Your task to perform on an android device: Open the calendar and show me this week's events? Image 0: 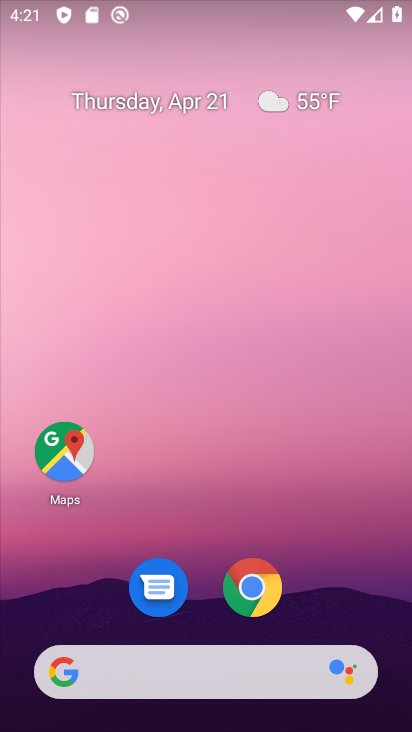
Step 0: drag from (362, 578) to (359, 124)
Your task to perform on an android device: Open the calendar and show me this week's events? Image 1: 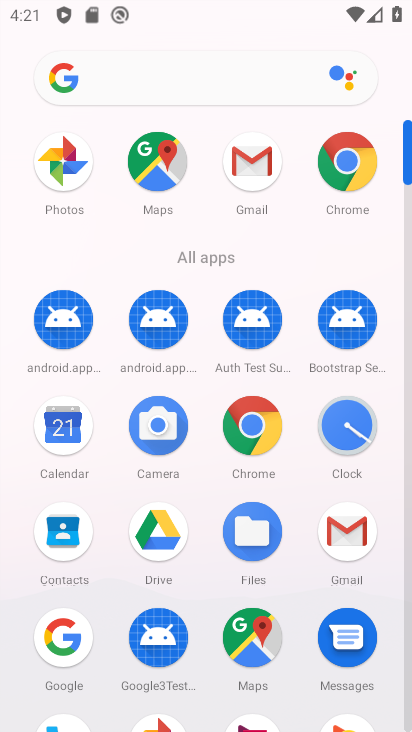
Step 1: drag from (266, 254) to (270, 21)
Your task to perform on an android device: Open the calendar and show me this week's events? Image 2: 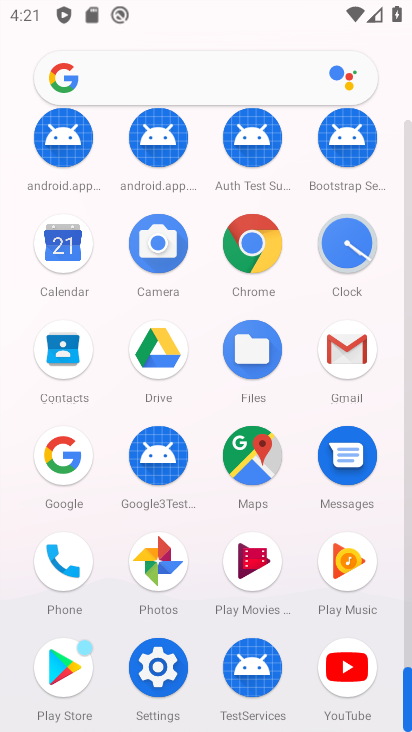
Step 2: click (69, 241)
Your task to perform on an android device: Open the calendar and show me this week's events? Image 3: 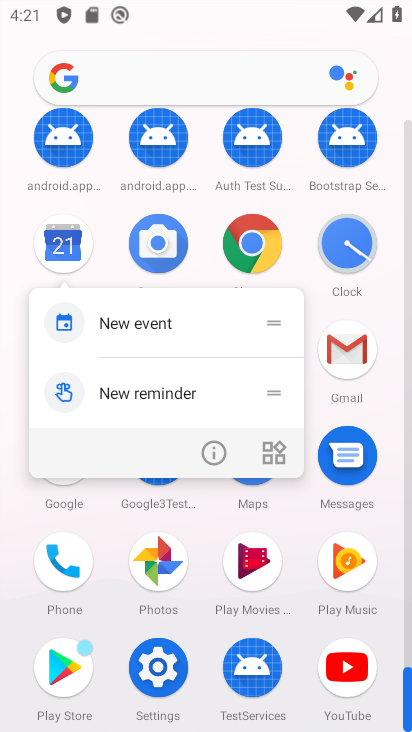
Step 3: click (68, 256)
Your task to perform on an android device: Open the calendar and show me this week's events? Image 4: 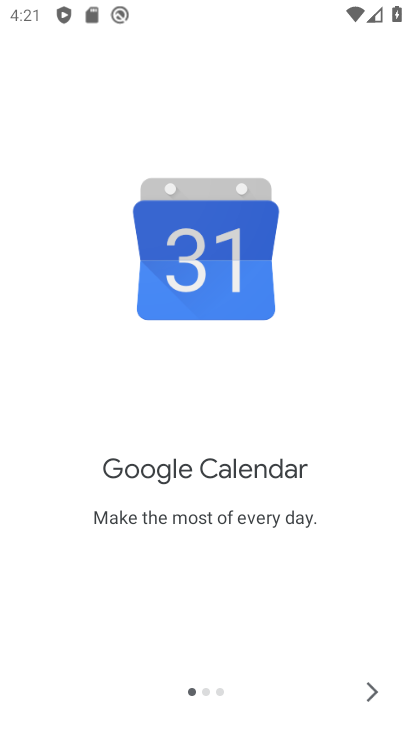
Step 4: click (371, 694)
Your task to perform on an android device: Open the calendar and show me this week's events? Image 5: 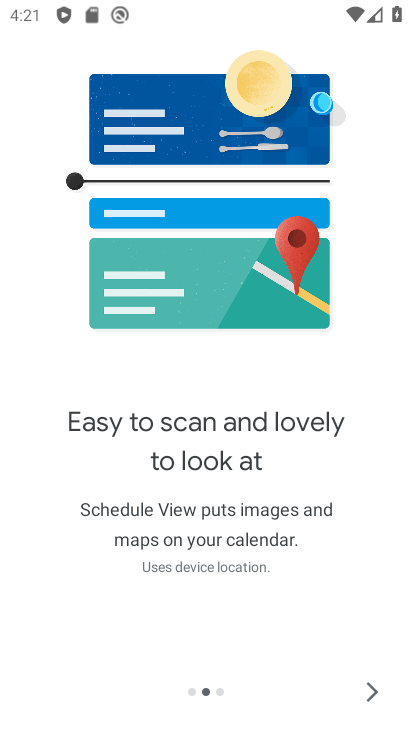
Step 5: click (371, 694)
Your task to perform on an android device: Open the calendar and show me this week's events? Image 6: 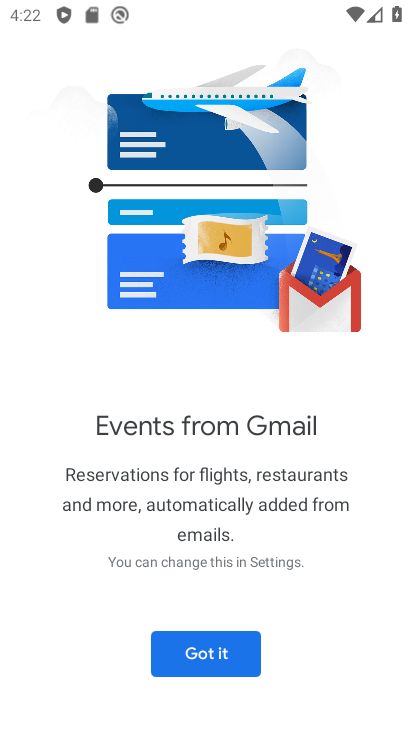
Step 6: click (199, 651)
Your task to perform on an android device: Open the calendar and show me this week's events? Image 7: 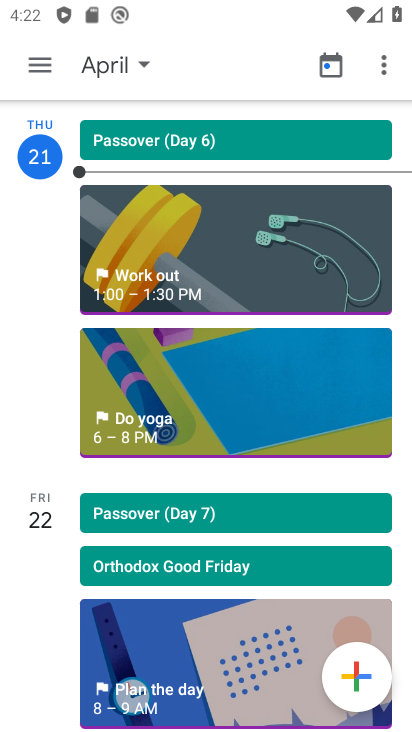
Step 7: click (139, 66)
Your task to perform on an android device: Open the calendar and show me this week's events? Image 8: 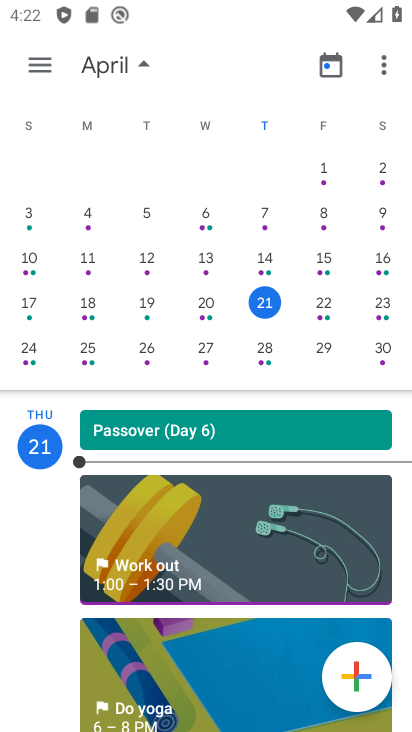
Step 8: click (322, 313)
Your task to perform on an android device: Open the calendar and show me this week's events? Image 9: 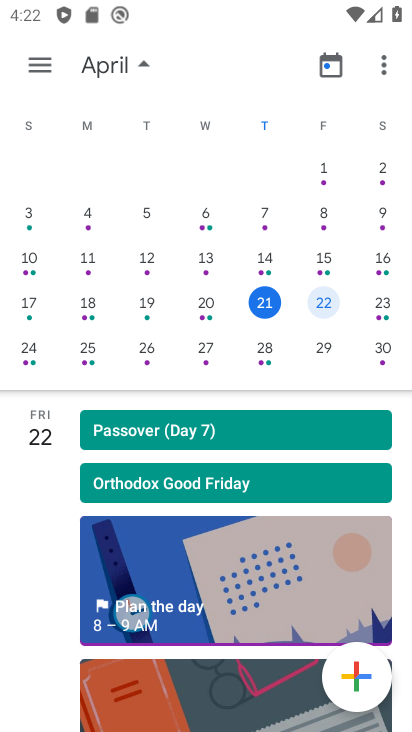
Step 9: task complete